Your task to perform on an android device: Open Yahoo.com Image 0: 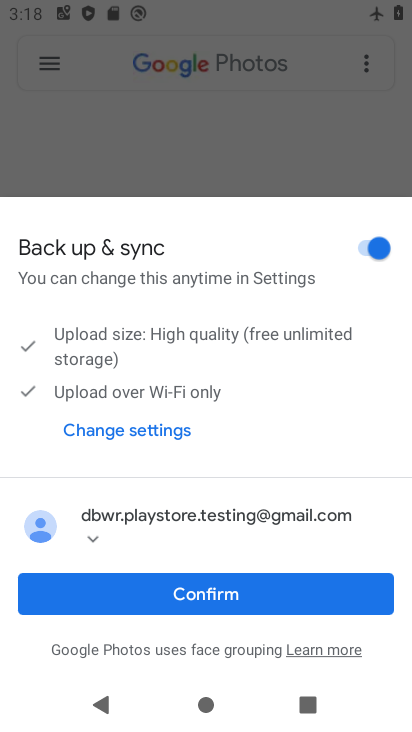
Step 0: press home button
Your task to perform on an android device: Open Yahoo.com Image 1: 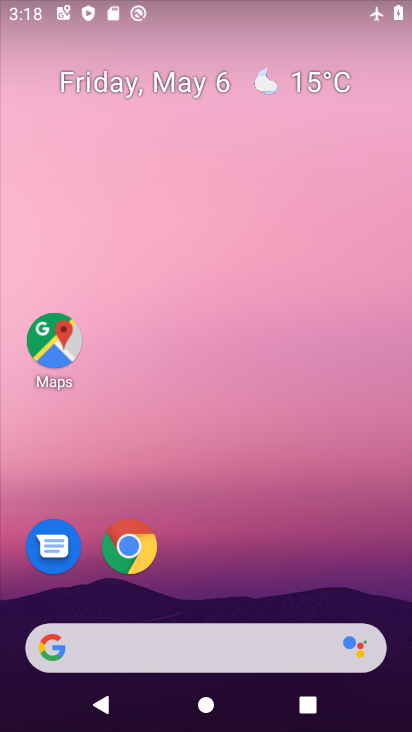
Step 1: click (139, 534)
Your task to perform on an android device: Open Yahoo.com Image 2: 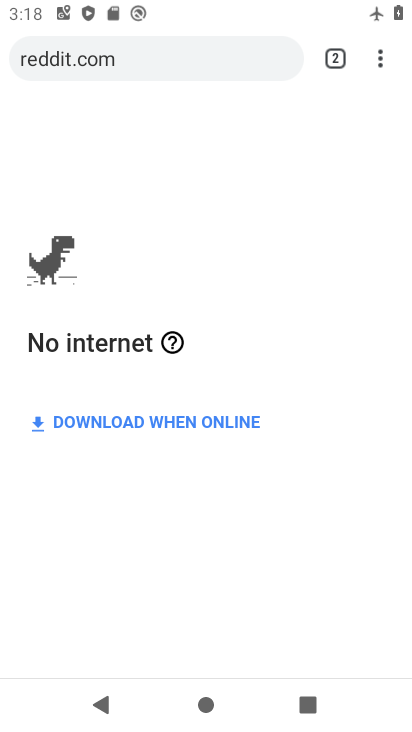
Step 2: click (253, 50)
Your task to perform on an android device: Open Yahoo.com Image 3: 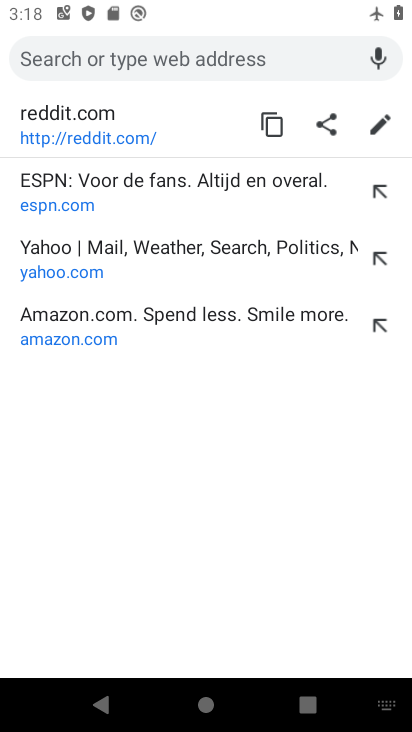
Step 3: click (219, 257)
Your task to perform on an android device: Open Yahoo.com Image 4: 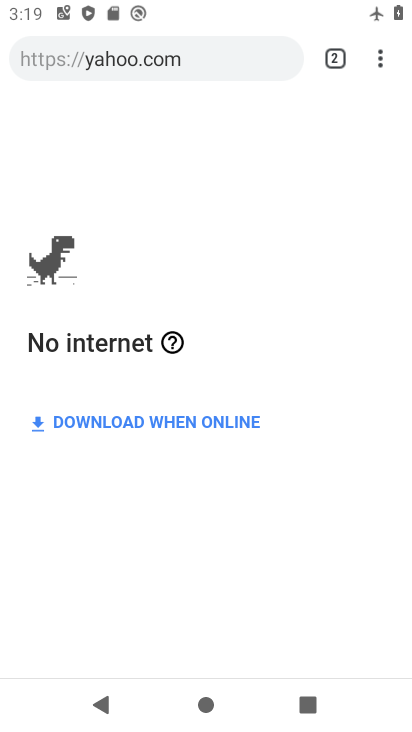
Step 4: task complete